Your task to perform on an android device: turn on priority inbox in the gmail app Image 0: 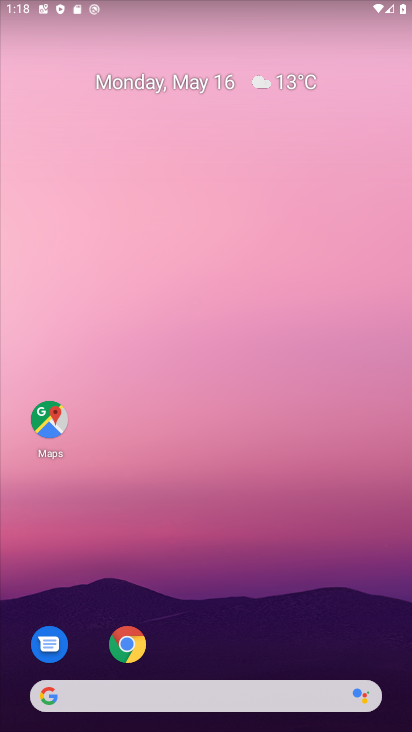
Step 0: drag from (215, 644) to (236, 172)
Your task to perform on an android device: turn on priority inbox in the gmail app Image 1: 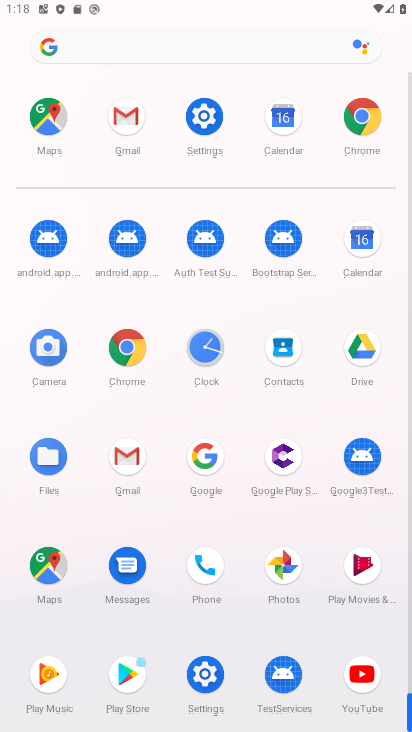
Step 1: click (125, 474)
Your task to perform on an android device: turn on priority inbox in the gmail app Image 2: 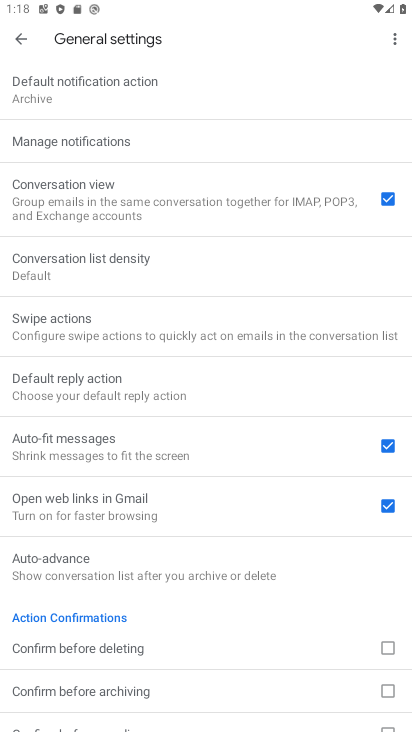
Step 2: click (19, 48)
Your task to perform on an android device: turn on priority inbox in the gmail app Image 3: 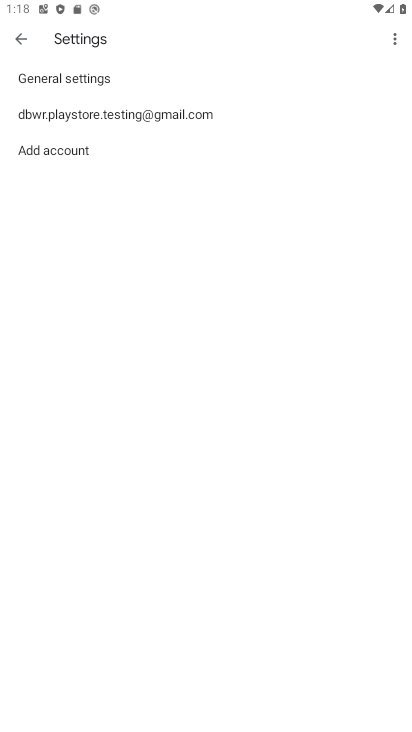
Step 3: click (87, 129)
Your task to perform on an android device: turn on priority inbox in the gmail app Image 4: 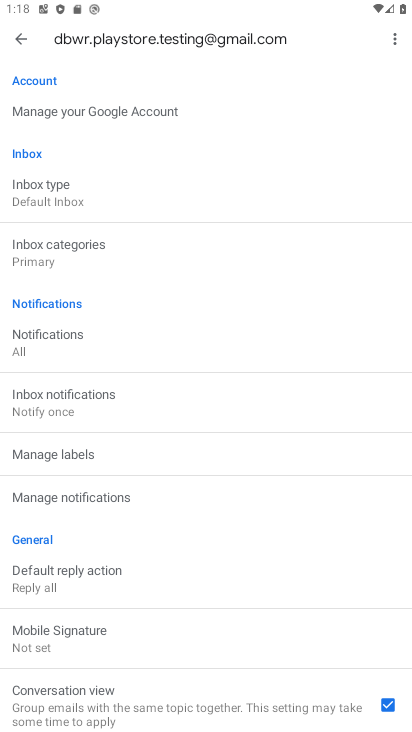
Step 4: click (59, 258)
Your task to perform on an android device: turn on priority inbox in the gmail app Image 5: 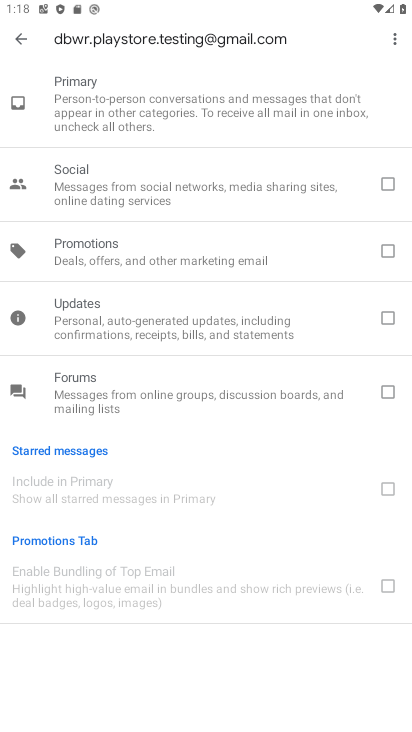
Step 5: task complete